Your task to perform on an android device: See recent photos Image 0: 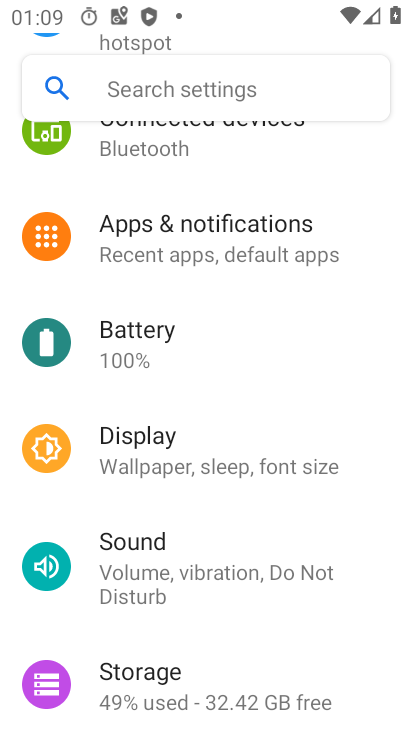
Step 0: press home button
Your task to perform on an android device: See recent photos Image 1: 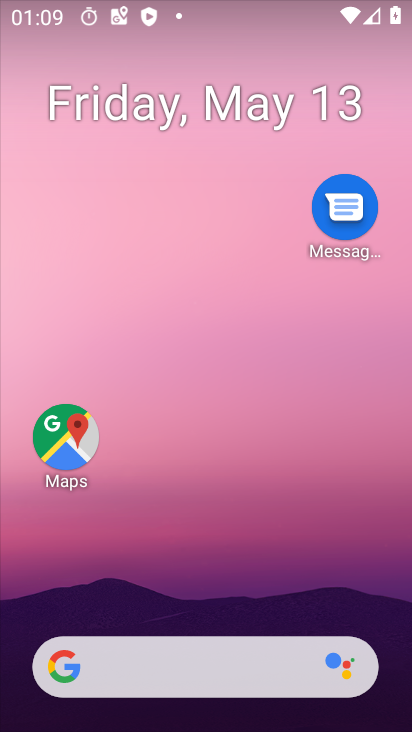
Step 1: drag from (241, 553) to (300, 95)
Your task to perform on an android device: See recent photos Image 2: 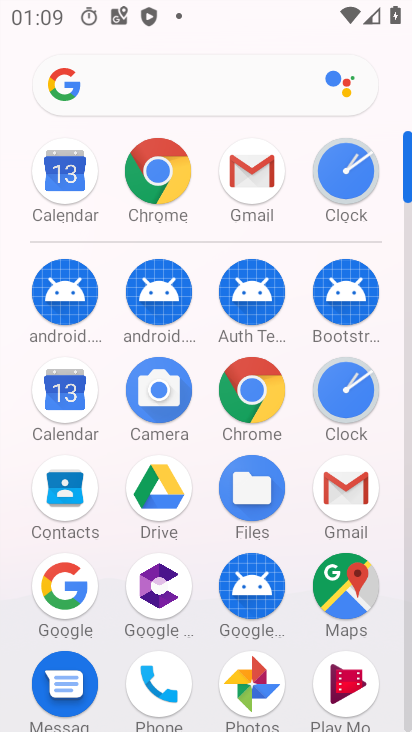
Step 2: click (247, 681)
Your task to perform on an android device: See recent photos Image 3: 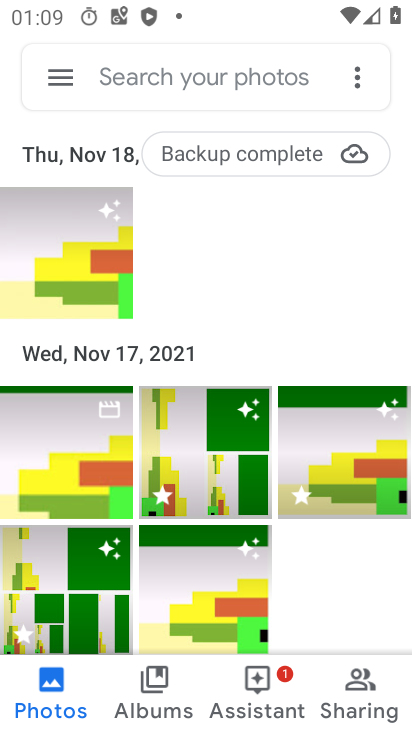
Step 3: click (39, 684)
Your task to perform on an android device: See recent photos Image 4: 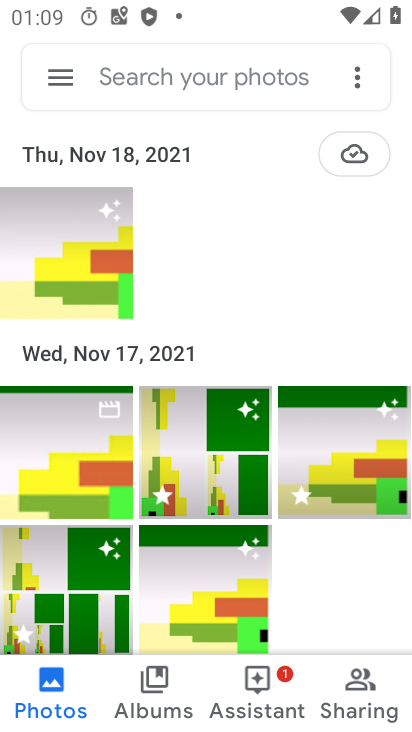
Step 4: task complete